Your task to perform on an android device: Go to location settings Image 0: 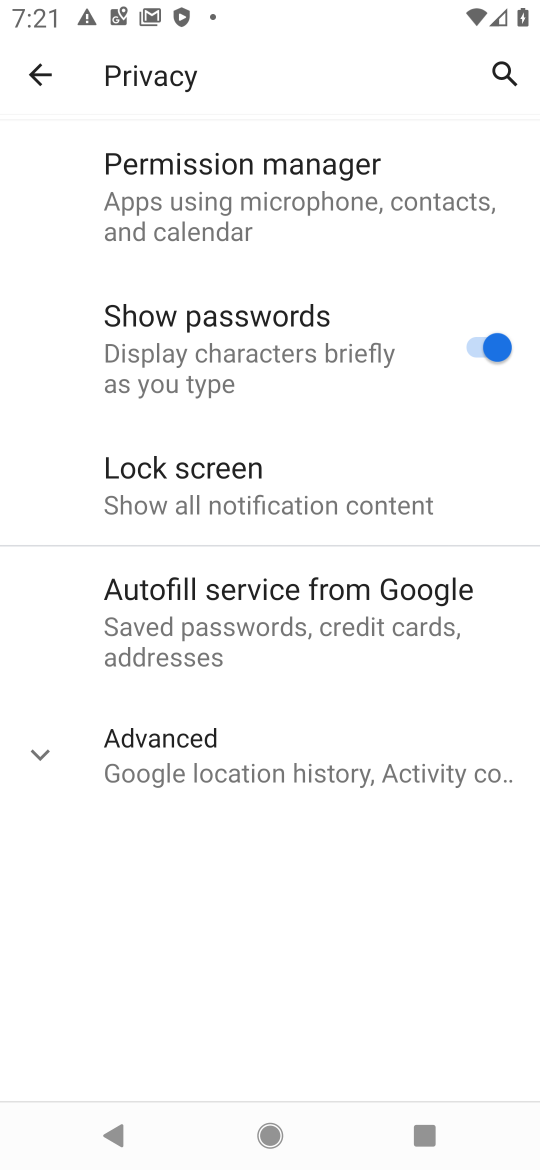
Step 0: press home button
Your task to perform on an android device: Go to location settings Image 1: 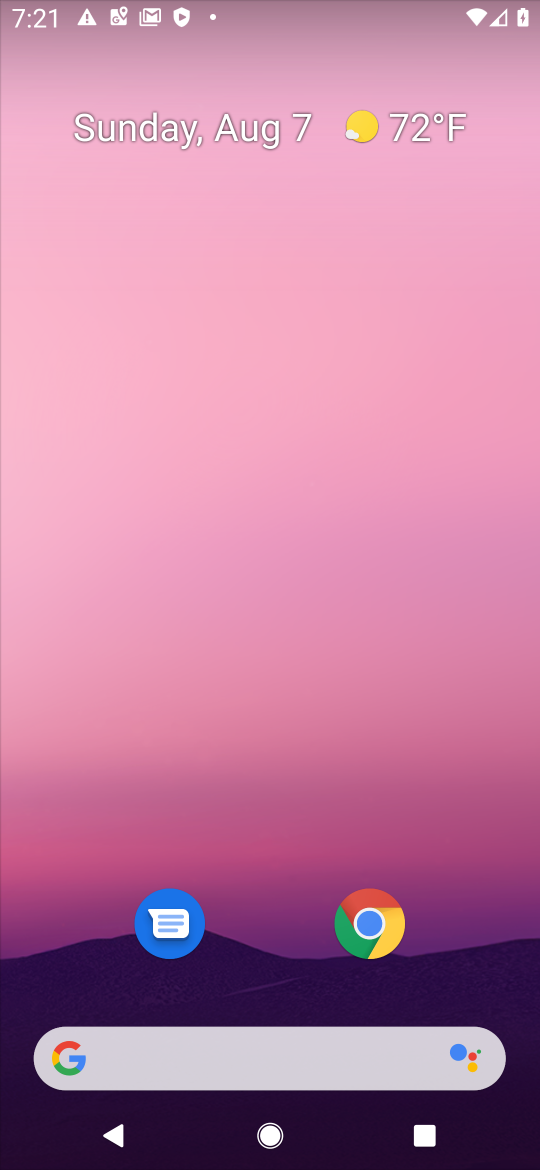
Step 1: drag from (508, 969) to (343, 21)
Your task to perform on an android device: Go to location settings Image 2: 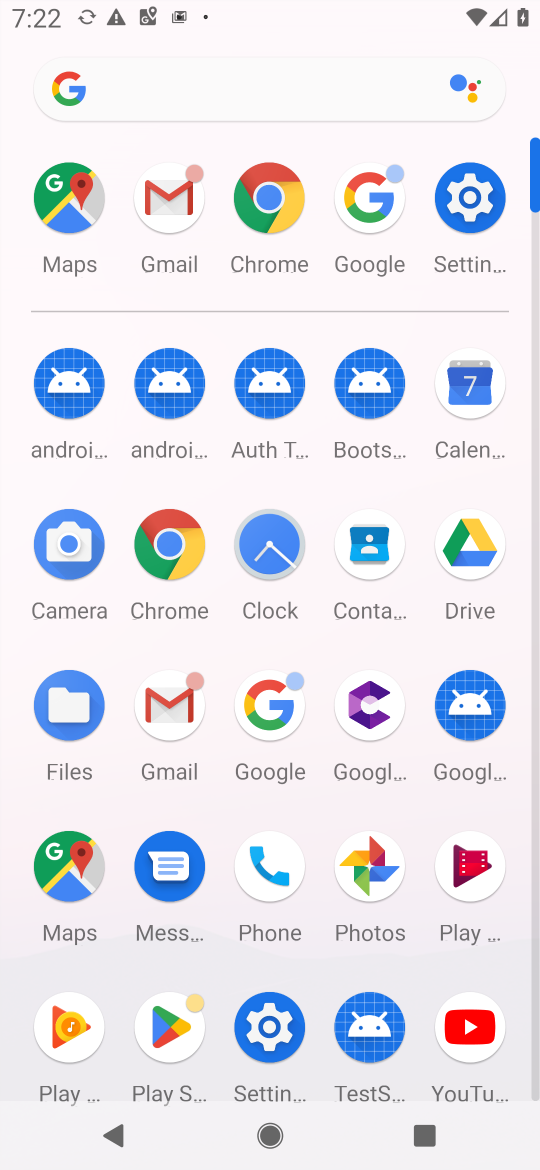
Step 2: click (271, 1023)
Your task to perform on an android device: Go to location settings Image 3: 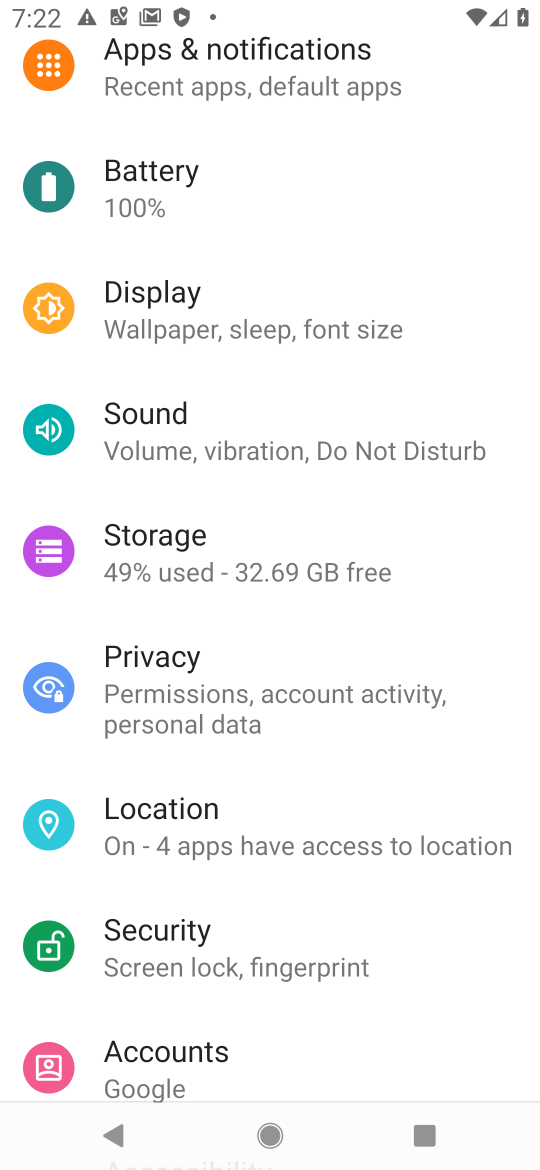
Step 3: click (148, 817)
Your task to perform on an android device: Go to location settings Image 4: 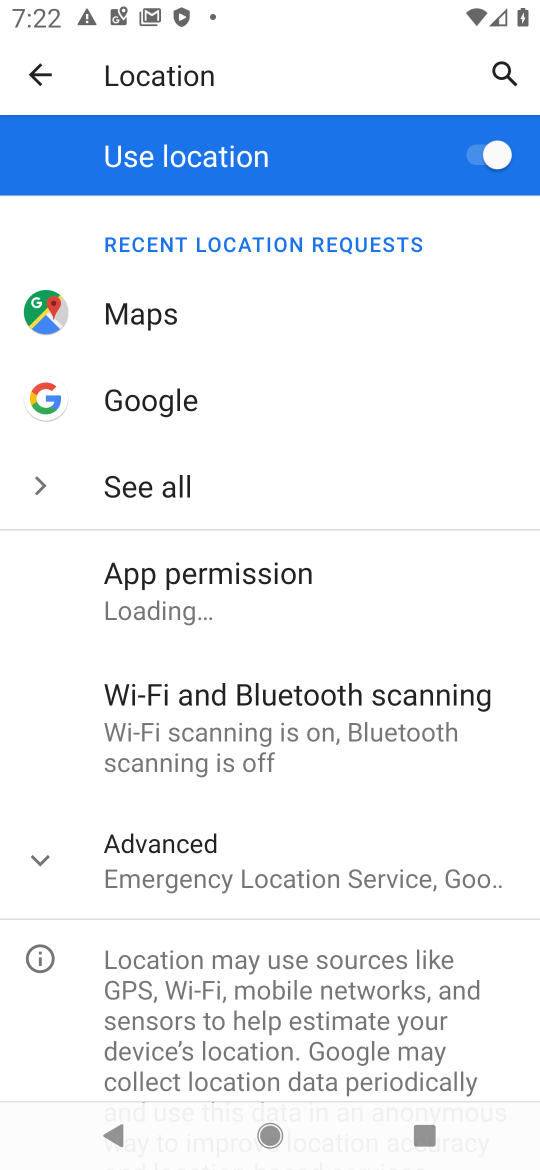
Step 4: task complete